Your task to perform on an android device: open the mobile data screen to see how much data has been used Image 0: 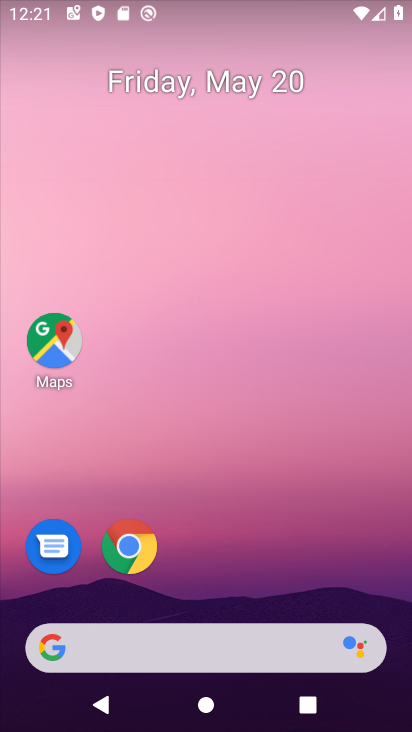
Step 0: drag from (272, 544) to (244, 114)
Your task to perform on an android device: open the mobile data screen to see how much data has been used Image 1: 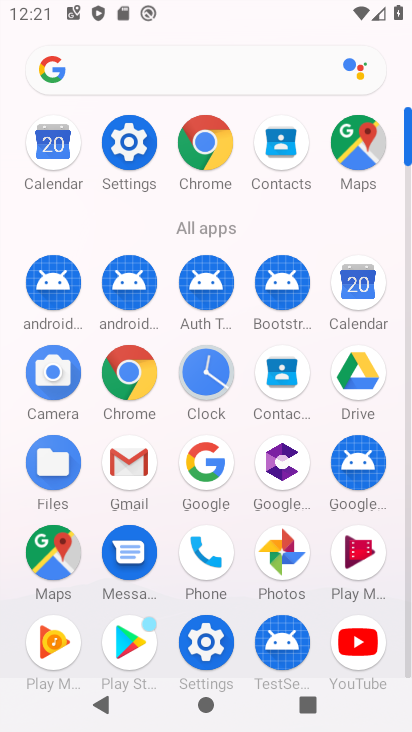
Step 1: click (136, 151)
Your task to perform on an android device: open the mobile data screen to see how much data has been used Image 2: 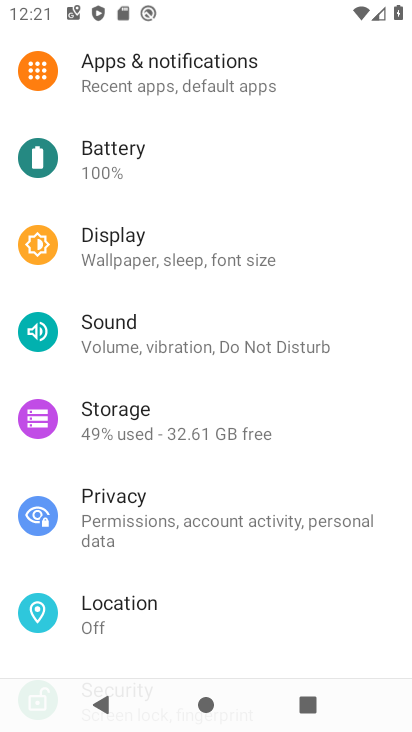
Step 2: drag from (202, 188) to (227, 584)
Your task to perform on an android device: open the mobile data screen to see how much data has been used Image 3: 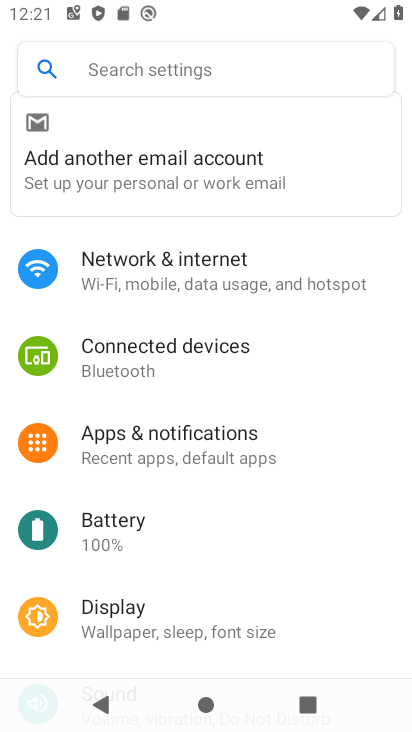
Step 3: click (244, 274)
Your task to perform on an android device: open the mobile data screen to see how much data has been used Image 4: 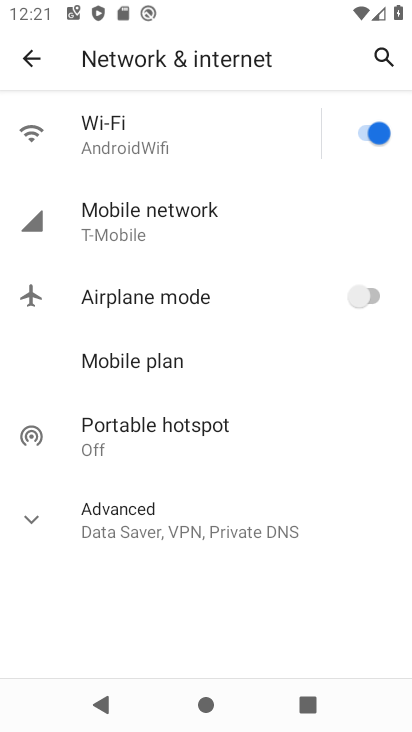
Step 4: click (204, 215)
Your task to perform on an android device: open the mobile data screen to see how much data has been used Image 5: 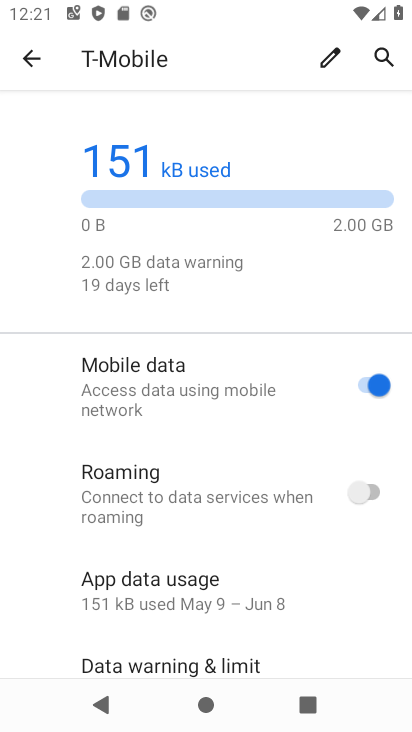
Step 5: task complete